Your task to perform on an android device: What's the weather going to be tomorrow? Image 0: 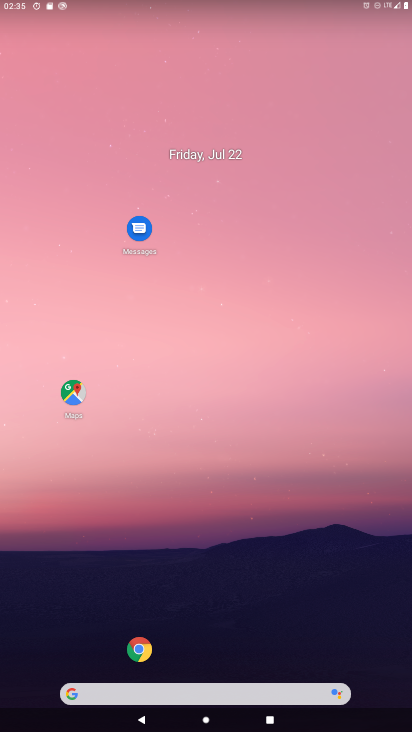
Step 0: click (145, 695)
Your task to perform on an android device: What's the weather going to be tomorrow? Image 1: 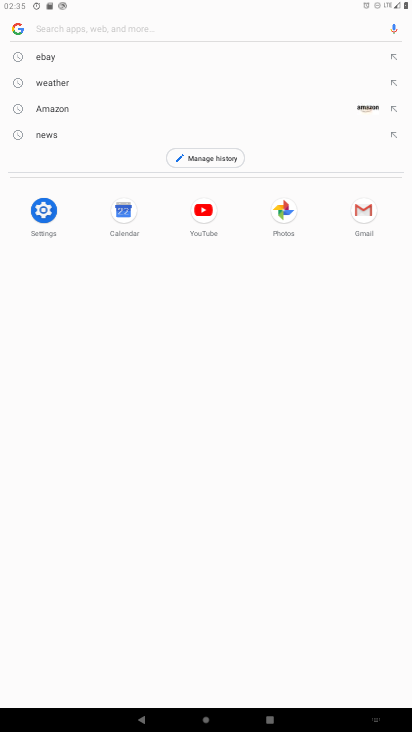
Step 1: type "What's the weather going to be tomorrow?"
Your task to perform on an android device: What's the weather going to be tomorrow? Image 2: 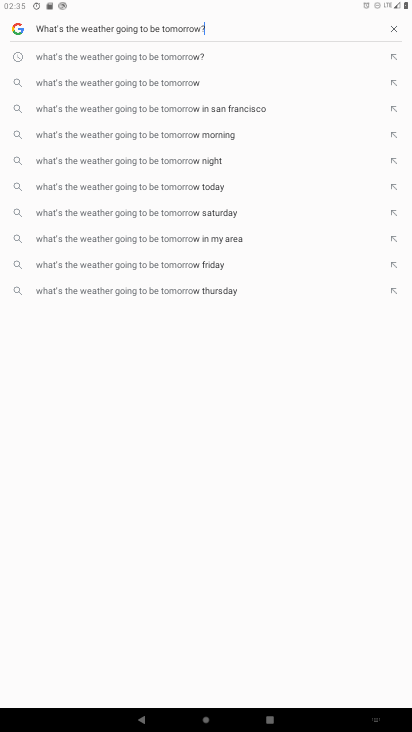
Step 2: type ""
Your task to perform on an android device: What's the weather going to be tomorrow? Image 3: 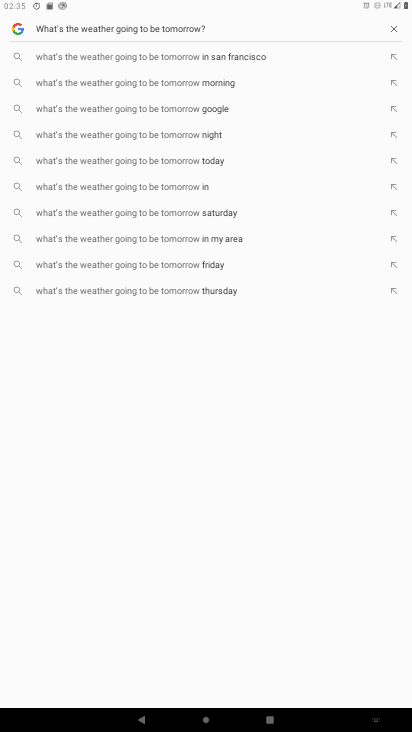
Step 3: type ""
Your task to perform on an android device: What's the weather going to be tomorrow? Image 4: 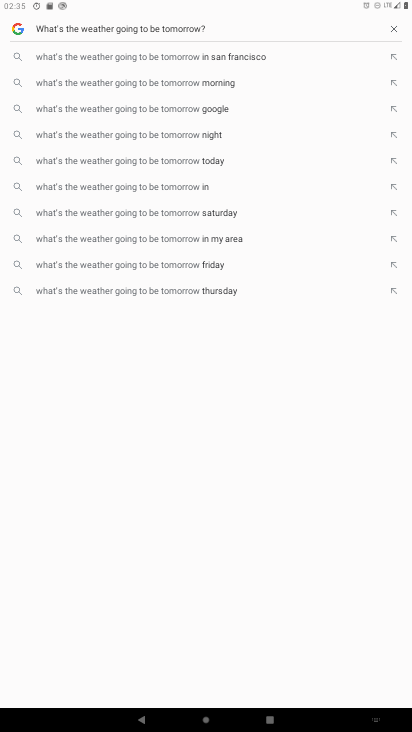
Step 4: type ""
Your task to perform on an android device: What's the weather going to be tomorrow? Image 5: 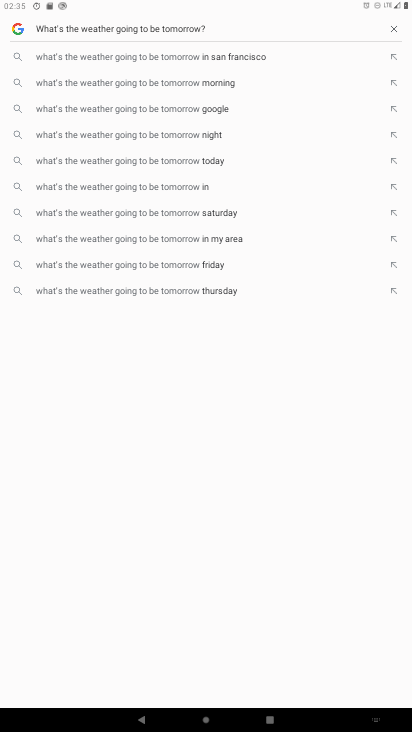
Step 5: task complete